Your task to perform on an android device: Open the stopwatch Image 0: 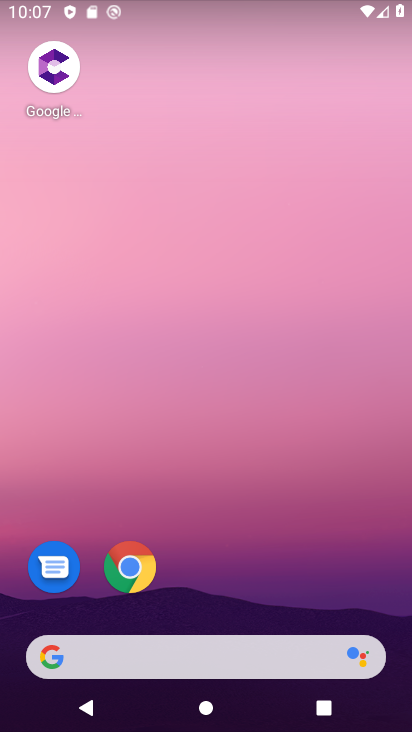
Step 0: drag from (150, 651) to (143, 227)
Your task to perform on an android device: Open the stopwatch Image 1: 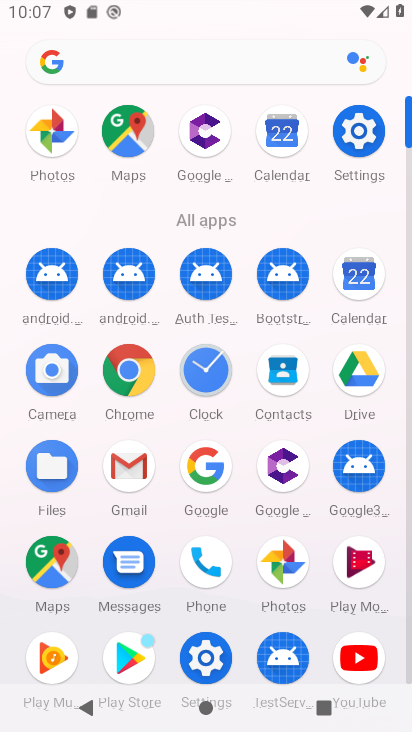
Step 1: click (219, 372)
Your task to perform on an android device: Open the stopwatch Image 2: 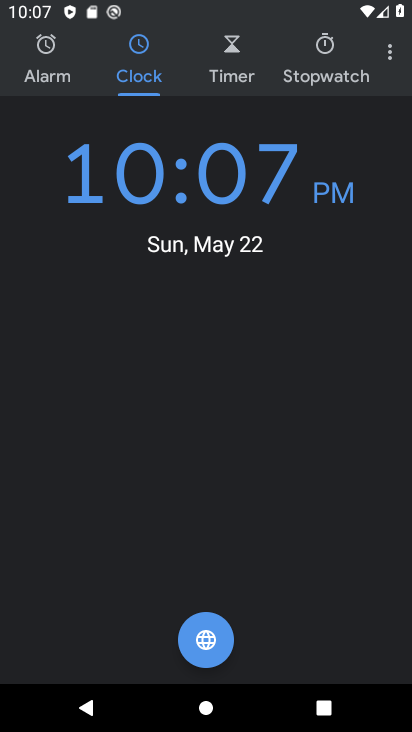
Step 2: click (333, 67)
Your task to perform on an android device: Open the stopwatch Image 3: 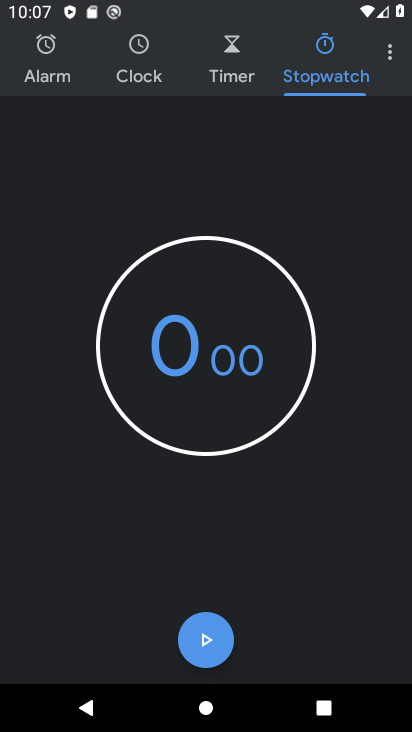
Step 3: task complete